Your task to perform on an android device: Search for sushi restaurants on Maps Image 0: 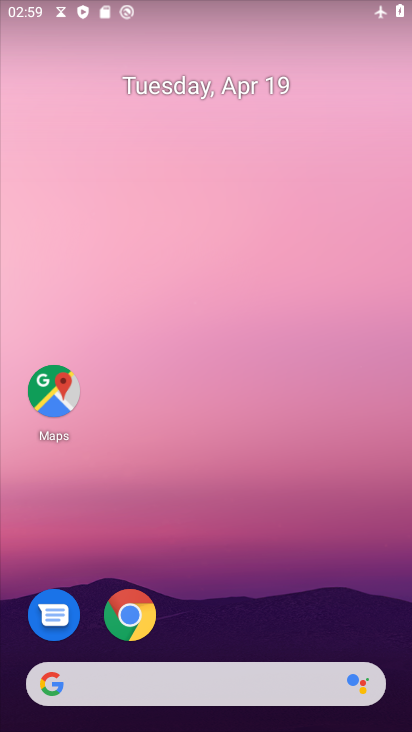
Step 0: drag from (249, 493) to (253, 181)
Your task to perform on an android device: Search for sushi restaurants on Maps Image 1: 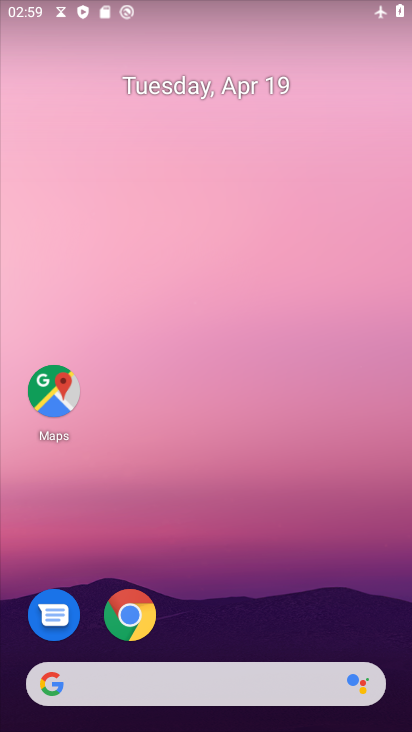
Step 1: drag from (259, 465) to (281, 210)
Your task to perform on an android device: Search for sushi restaurants on Maps Image 2: 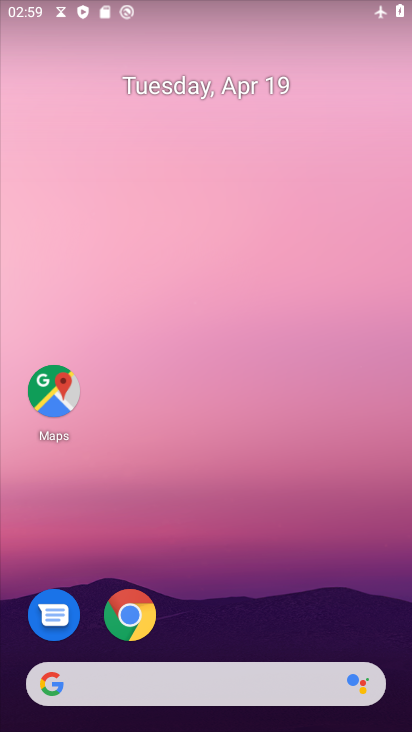
Step 2: drag from (241, 602) to (274, 126)
Your task to perform on an android device: Search for sushi restaurants on Maps Image 3: 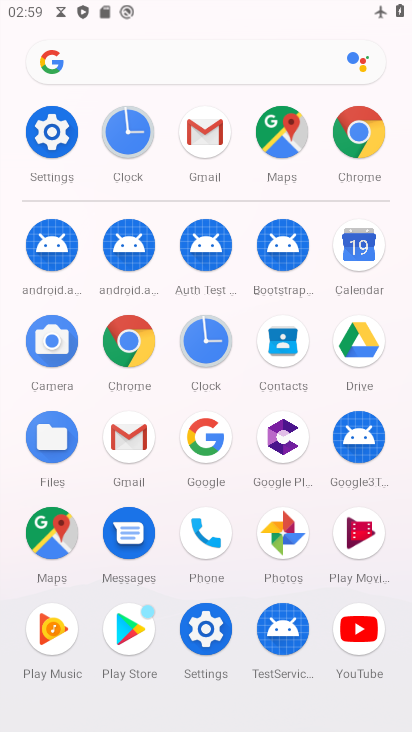
Step 3: click (50, 536)
Your task to perform on an android device: Search for sushi restaurants on Maps Image 4: 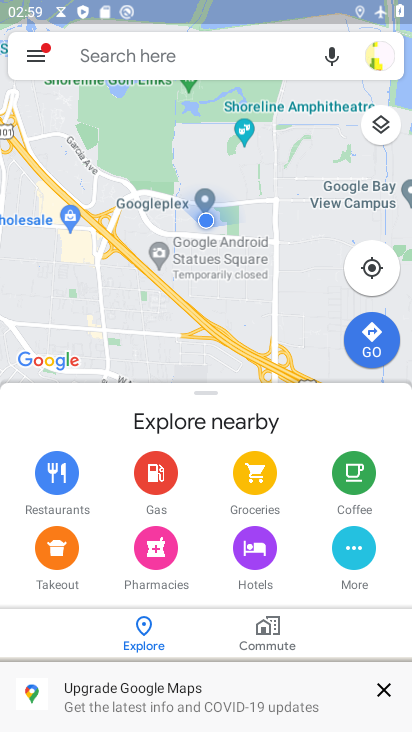
Step 4: click (179, 50)
Your task to perform on an android device: Search for sushi restaurants on Maps Image 5: 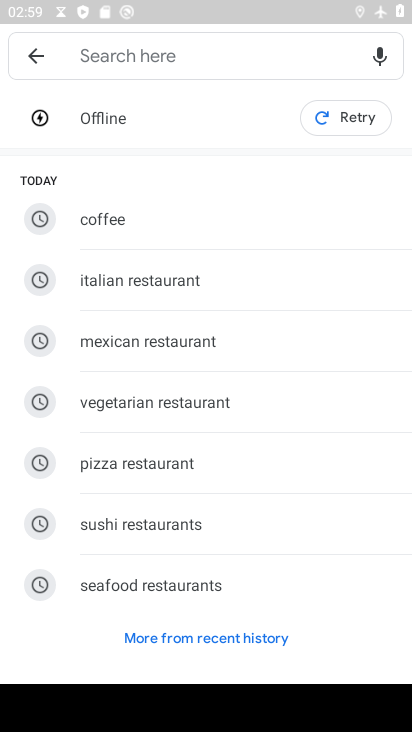
Step 5: click (224, 43)
Your task to perform on an android device: Search for sushi restaurants on Maps Image 6: 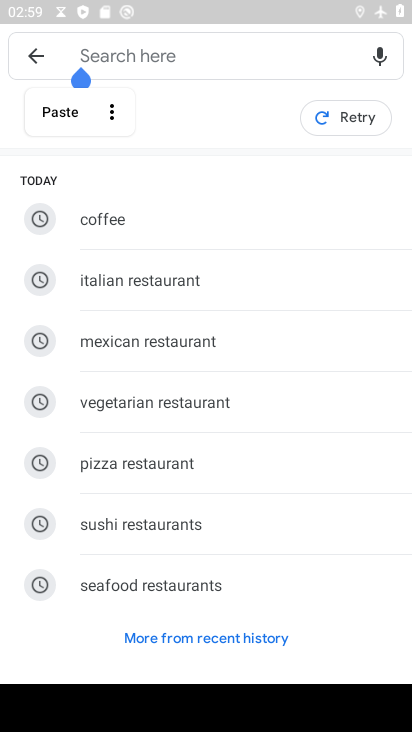
Step 6: type " sushi restaurants"
Your task to perform on an android device: Search for sushi restaurants on Maps Image 7: 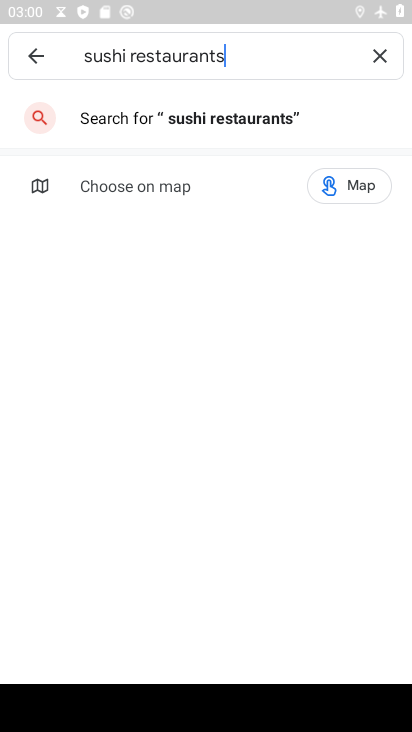
Step 7: click (198, 120)
Your task to perform on an android device: Search for sushi restaurants on Maps Image 8: 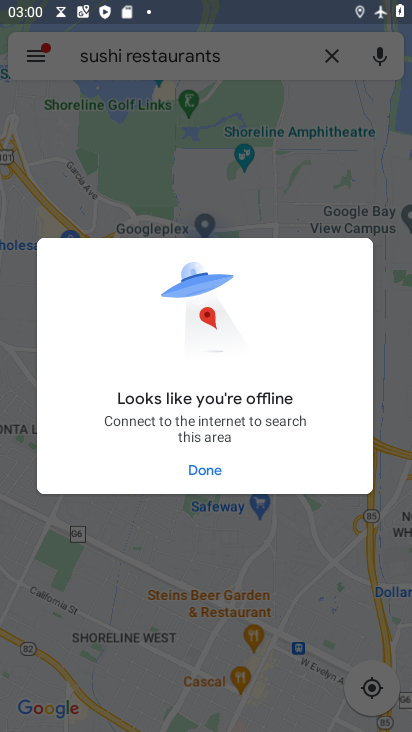
Step 8: click (198, 473)
Your task to perform on an android device: Search for sushi restaurants on Maps Image 9: 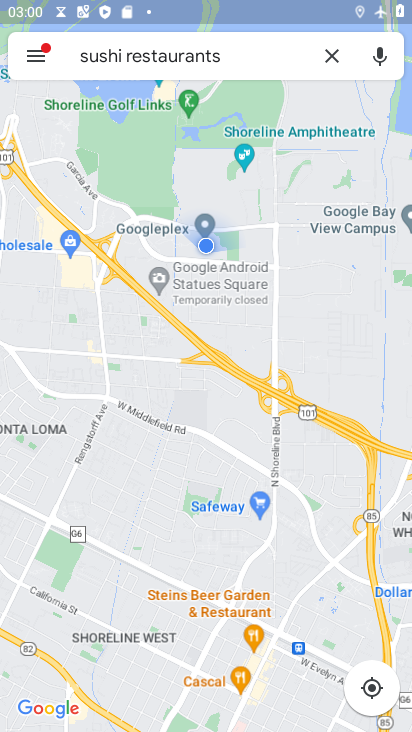
Step 9: task complete